Your task to perform on an android device: Go to Google Image 0: 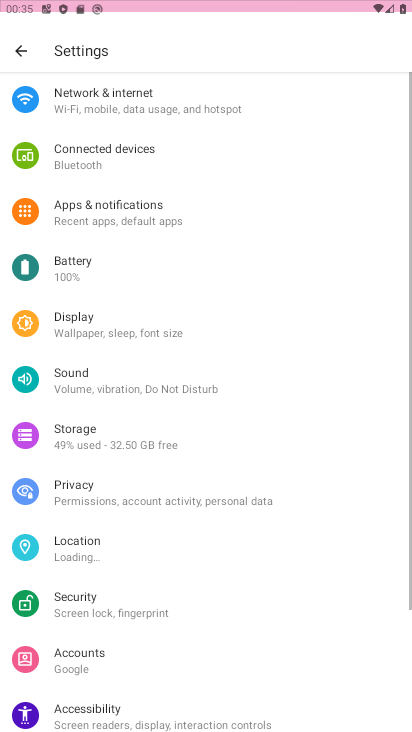
Step 0: drag from (227, 133) to (309, 69)
Your task to perform on an android device: Go to Google Image 1: 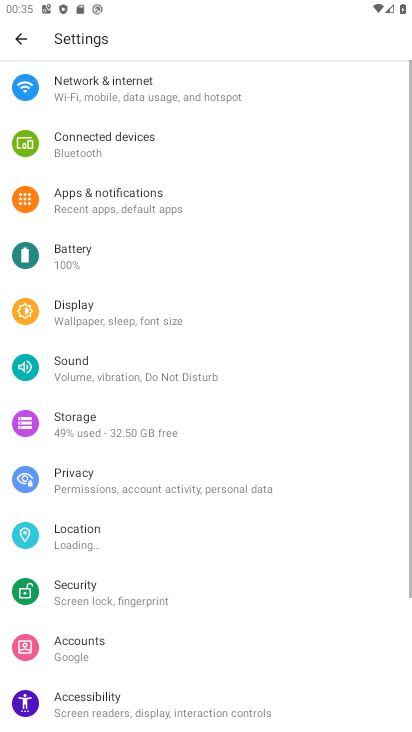
Step 1: click (101, 93)
Your task to perform on an android device: Go to Google Image 2: 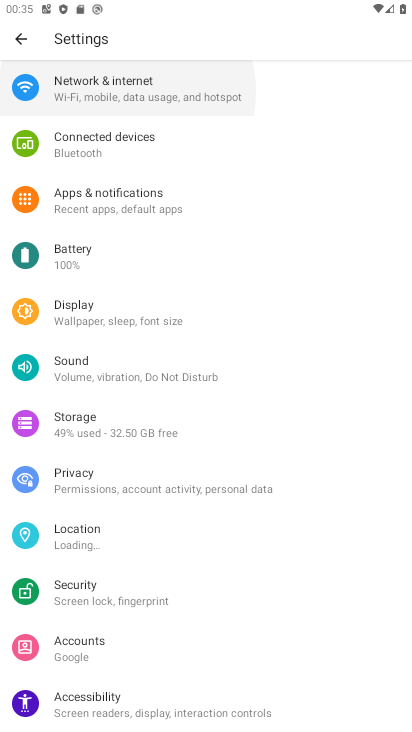
Step 2: click (102, 90)
Your task to perform on an android device: Go to Google Image 3: 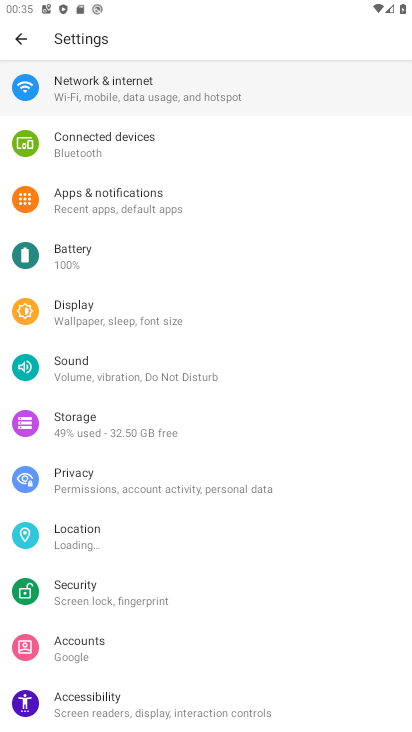
Step 3: click (102, 90)
Your task to perform on an android device: Go to Google Image 4: 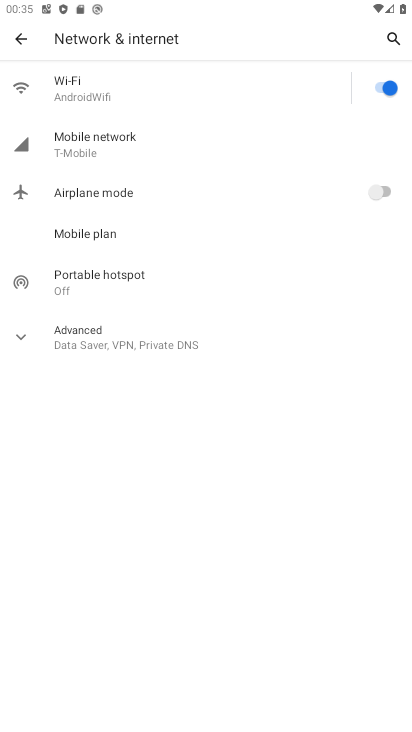
Step 4: click (21, 27)
Your task to perform on an android device: Go to Google Image 5: 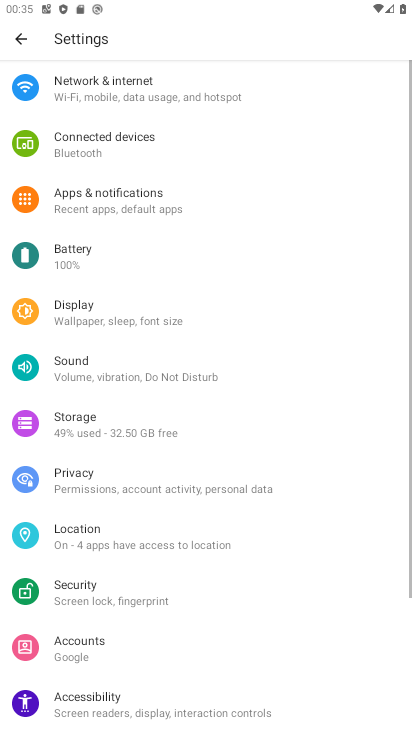
Step 5: press back button
Your task to perform on an android device: Go to Google Image 6: 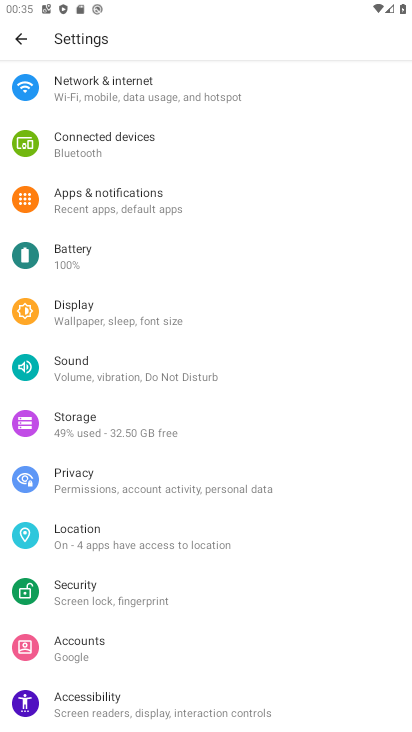
Step 6: press home button
Your task to perform on an android device: Go to Google Image 7: 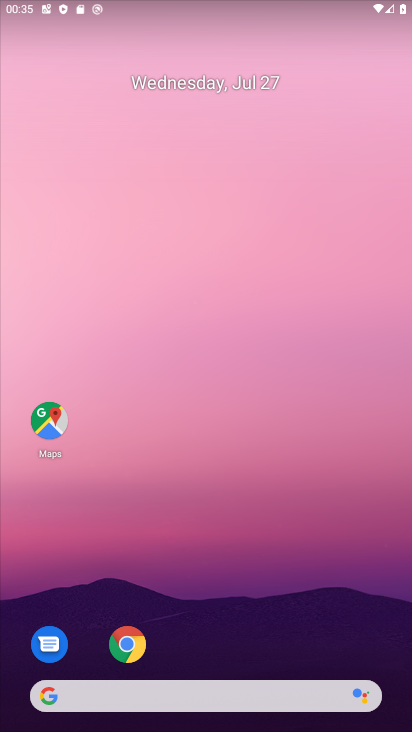
Step 7: drag from (178, 620) to (177, 2)
Your task to perform on an android device: Go to Google Image 8: 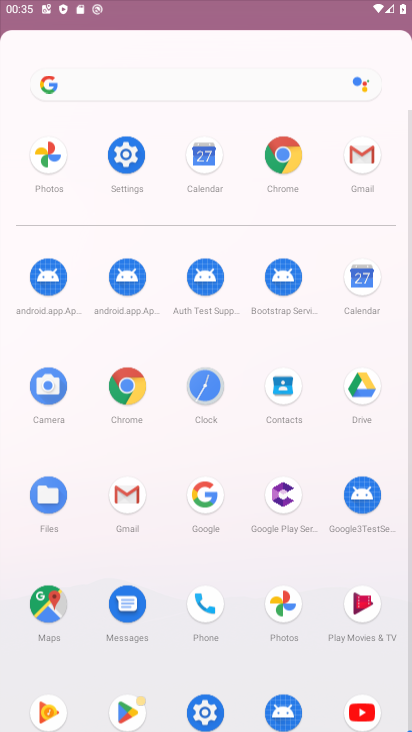
Step 8: drag from (245, 420) to (246, 136)
Your task to perform on an android device: Go to Google Image 9: 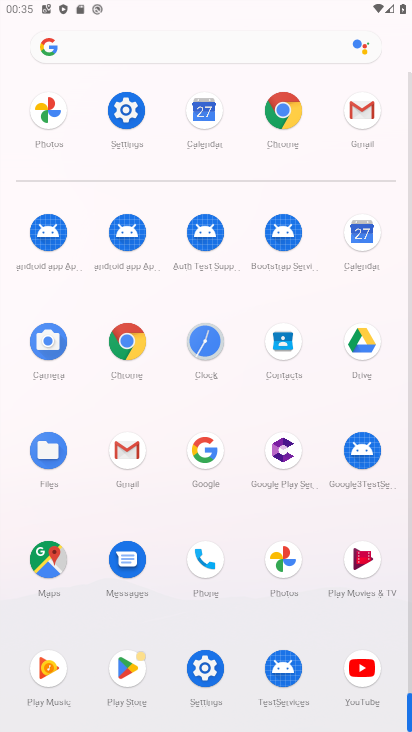
Step 9: click (212, 451)
Your task to perform on an android device: Go to Google Image 10: 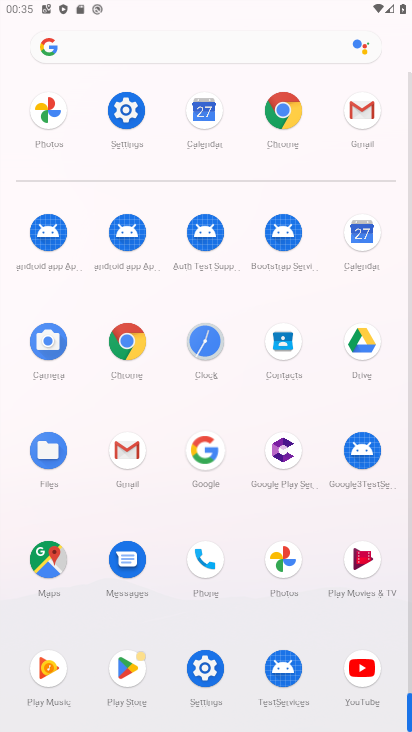
Step 10: click (212, 451)
Your task to perform on an android device: Go to Google Image 11: 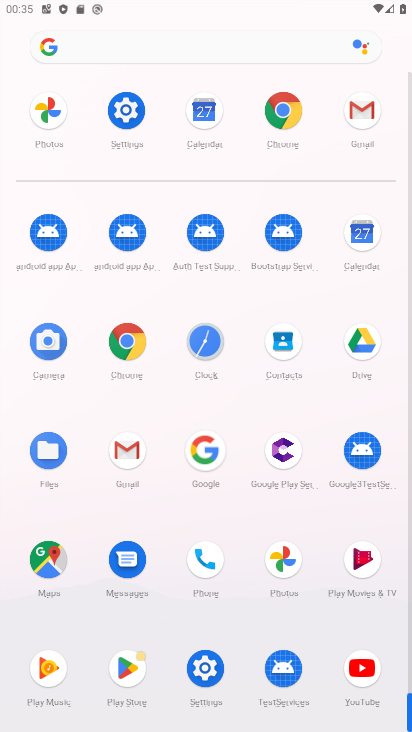
Step 11: click (211, 450)
Your task to perform on an android device: Go to Google Image 12: 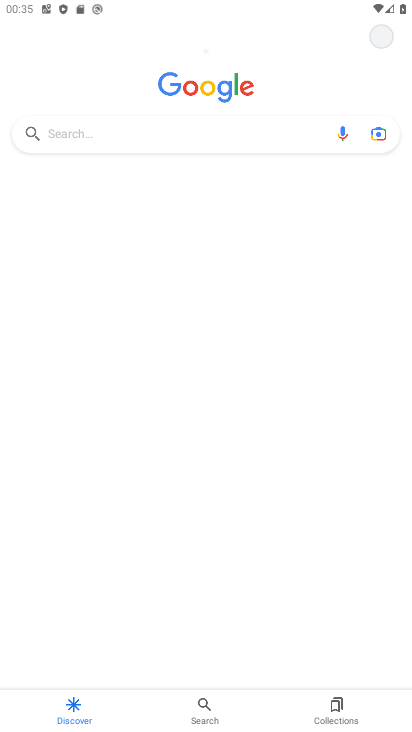
Step 12: task complete